Your task to perform on an android device: check the backup settings in the google photos Image 0: 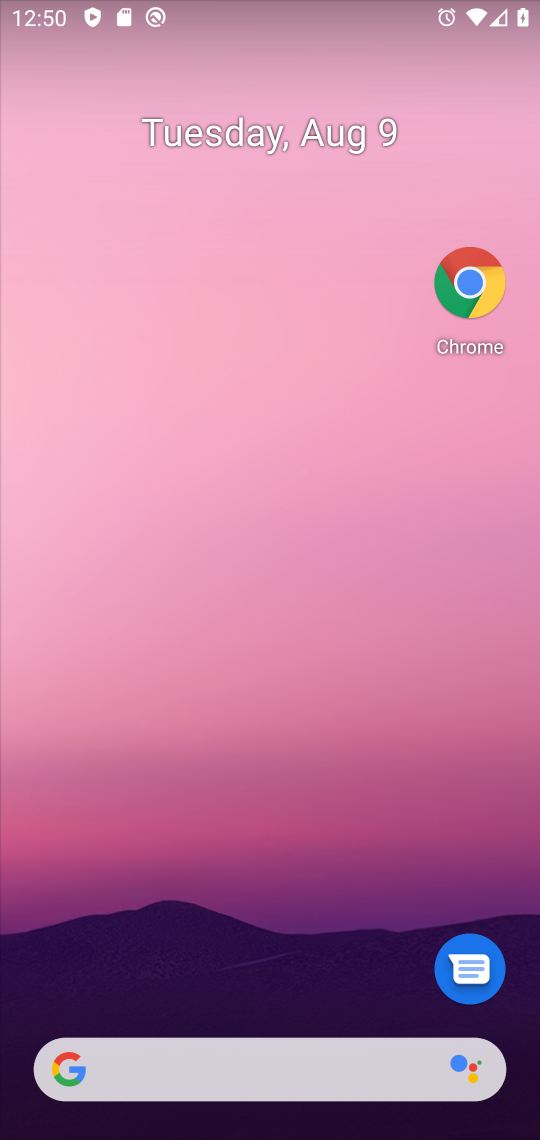
Step 0: drag from (308, 932) to (317, 489)
Your task to perform on an android device: check the backup settings in the google photos Image 1: 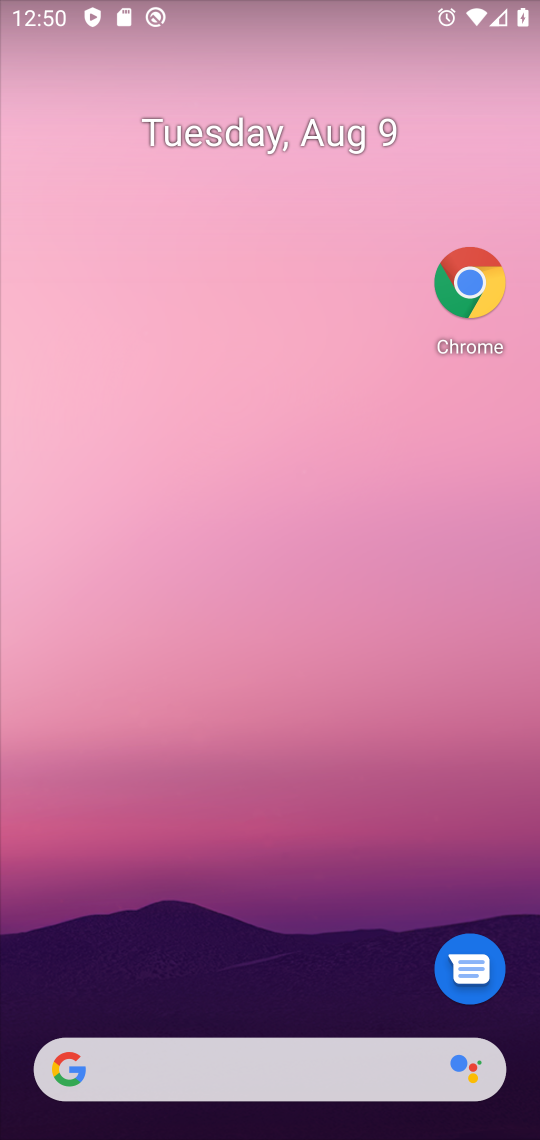
Step 1: drag from (291, 927) to (434, 156)
Your task to perform on an android device: check the backup settings in the google photos Image 2: 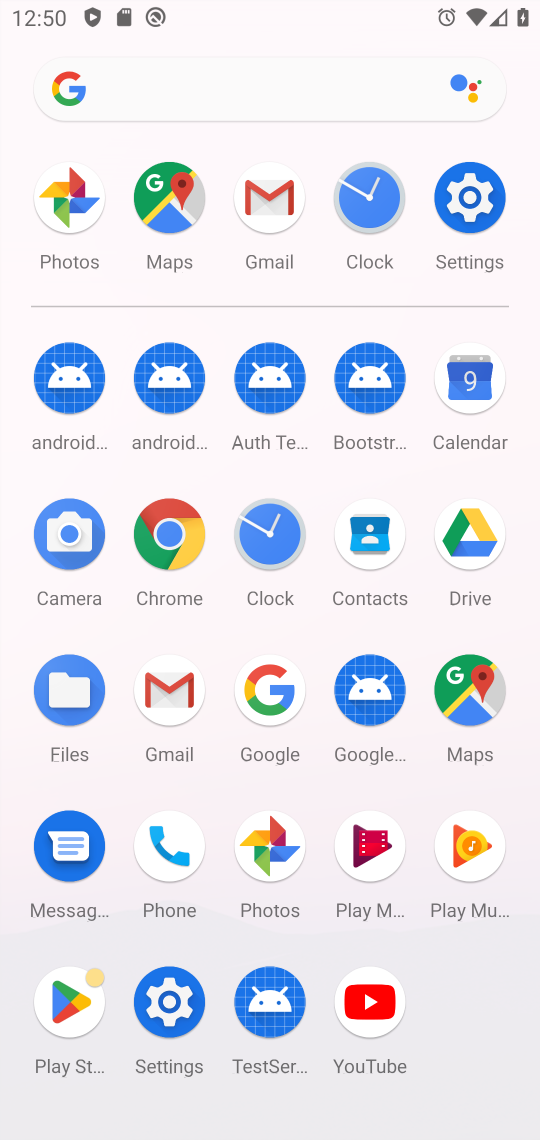
Step 2: click (262, 837)
Your task to perform on an android device: check the backup settings in the google photos Image 3: 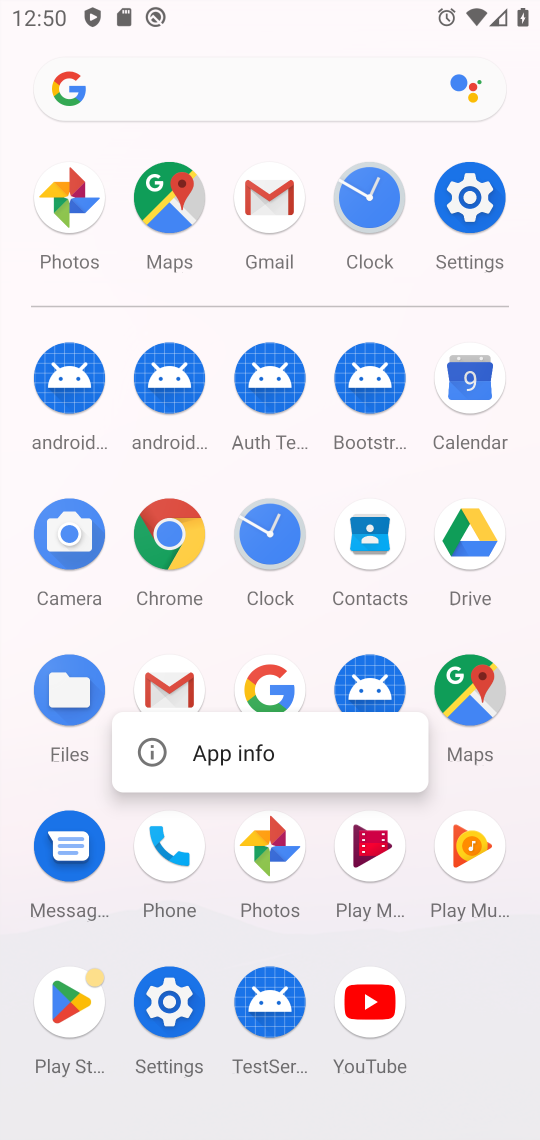
Step 3: click (244, 764)
Your task to perform on an android device: check the backup settings in the google photos Image 4: 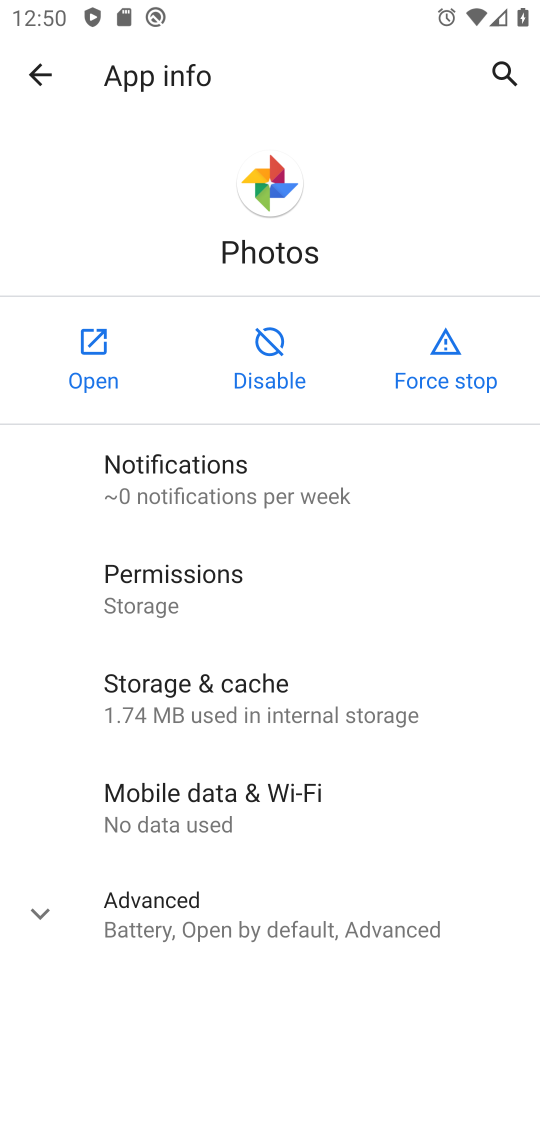
Step 4: click (78, 343)
Your task to perform on an android device: check the backup settings in the google photos Image 5: 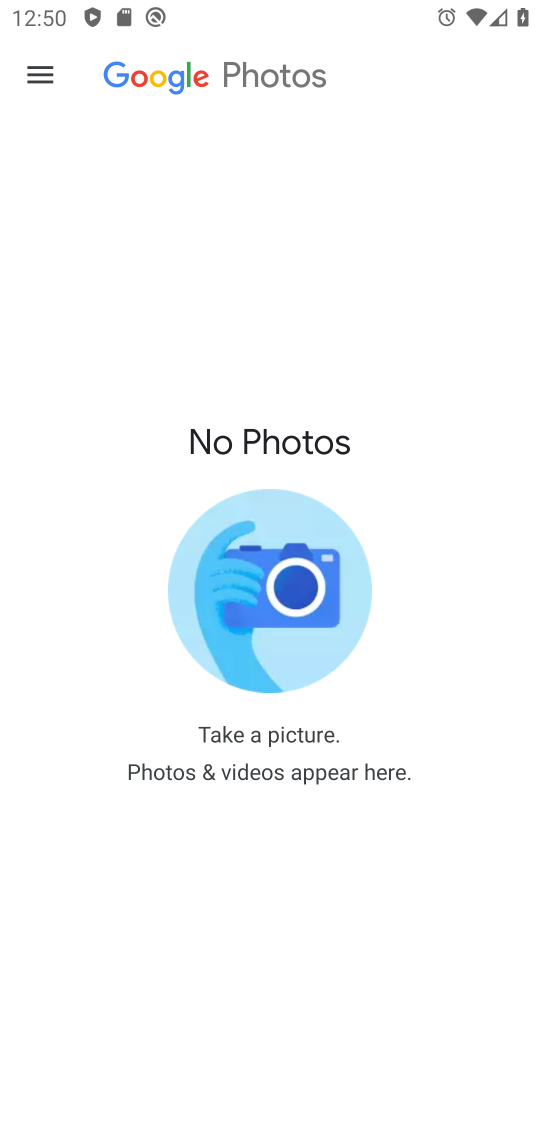
Step 5: drag from (242, 865) to (223, 558)
Your task to perform on an android device: check the backup settings in the google photos Image 6: 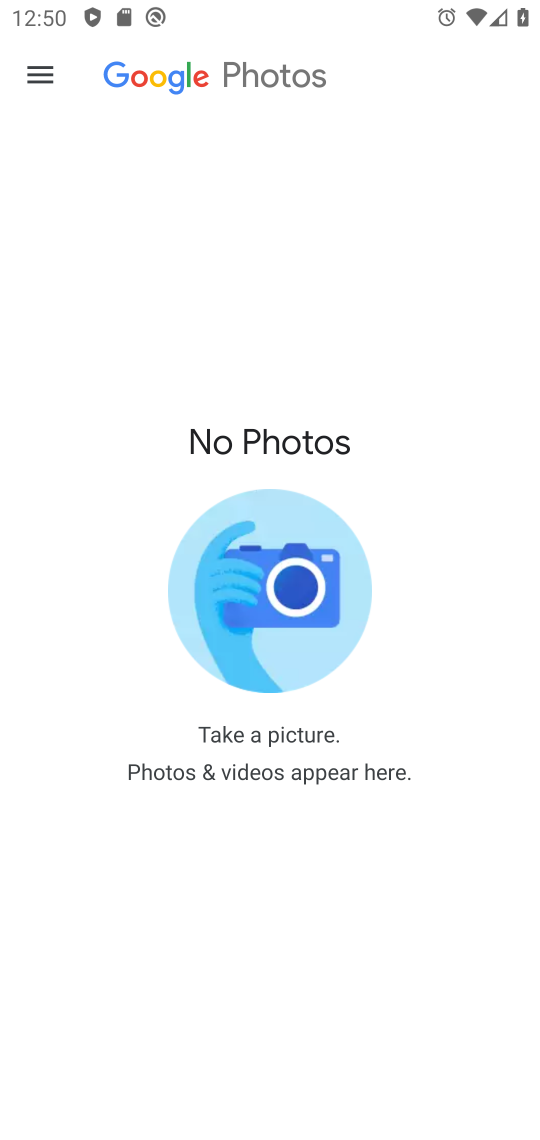
Step 6: click (38, 76)
Your task to perform on an android device: check the backup settings in the google photos Image 7: 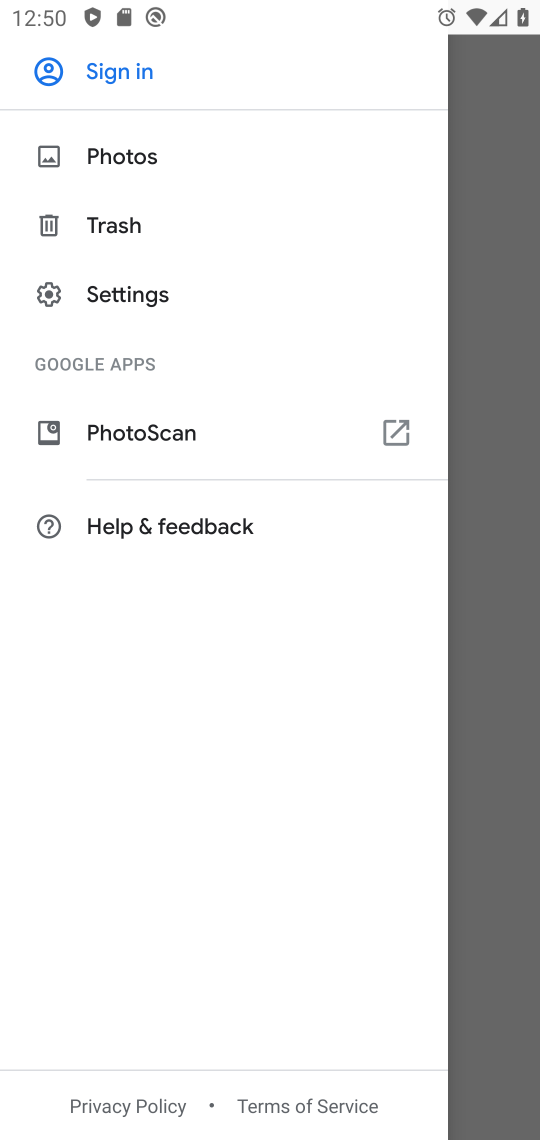
Step 7: click (503, 569)
Your task to perform on an android device: check the backup settings in the google photos Image 8: 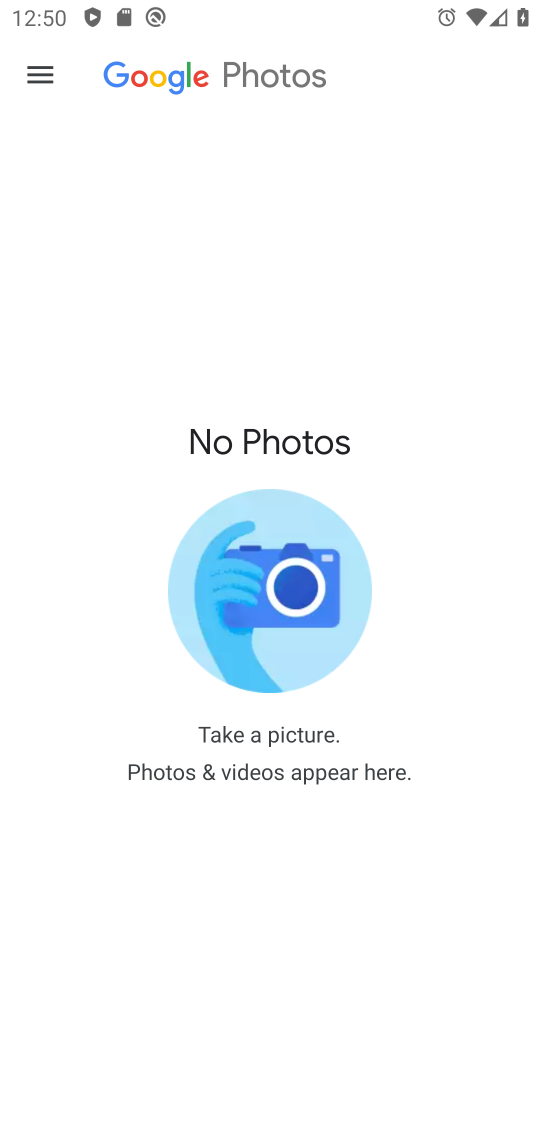
Step 8: drag from (280, 732) to (263, 615)
Your task to perform on an android device: check the backup settings in the google photos Image 9: 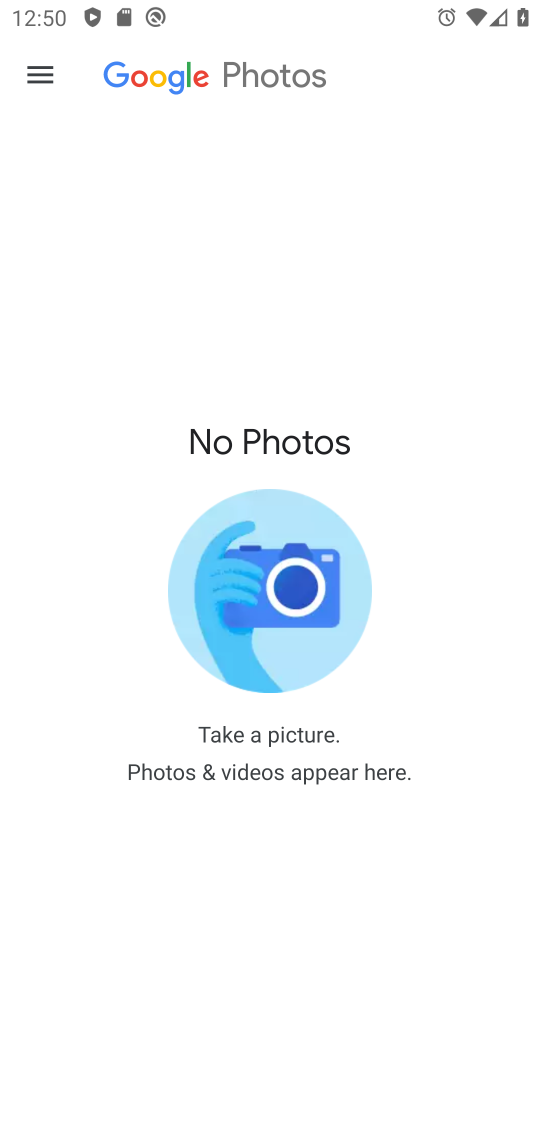
Step 9: click (252, 432)
Your task to perform on an android device: check the backup settings in the google photos Image 10: 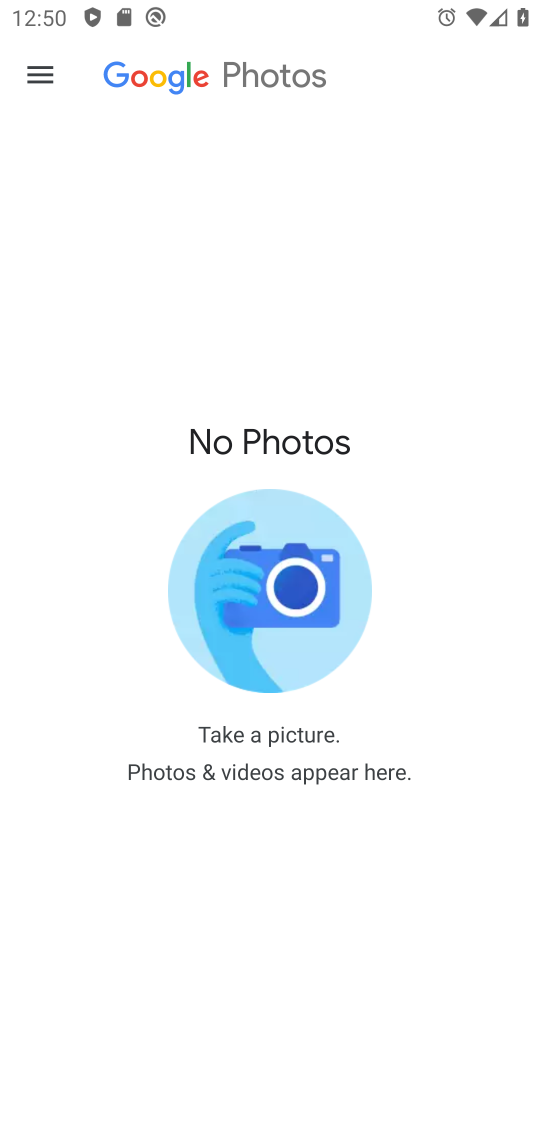
Step 10: click (306, 438)
Your task to perform on an android device: check the backup settings in the google photos Image 11: 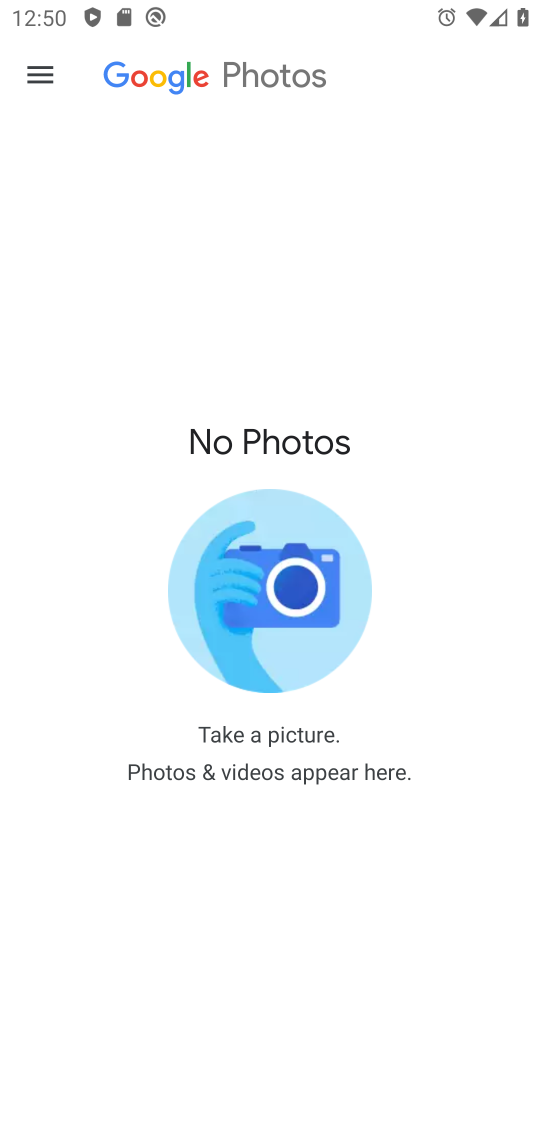
Step 11: click (268, 469)
Your task to perform on an android device: check the backup settings in the google photos Image 12: 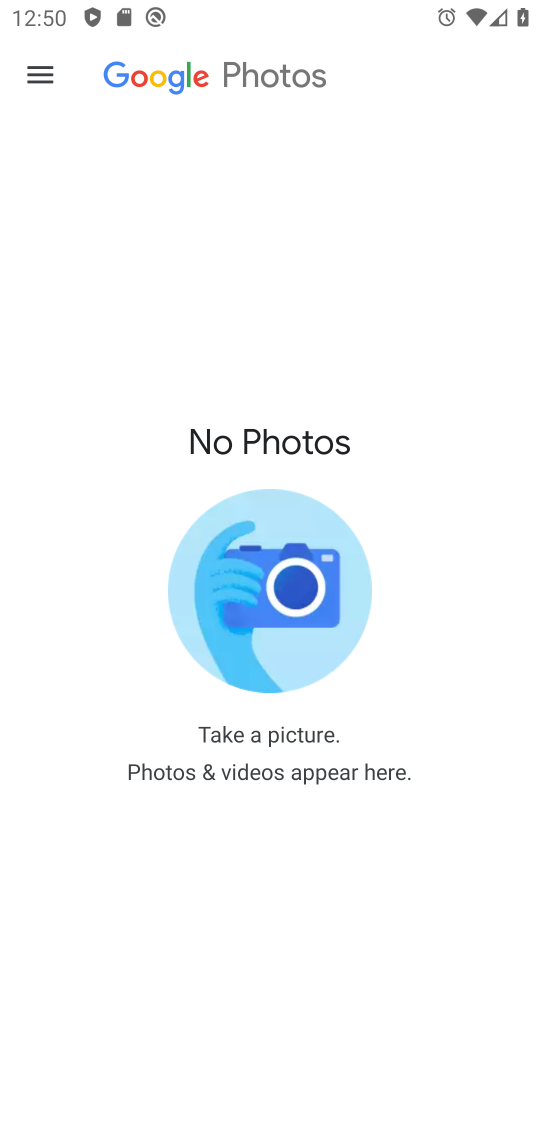
Step 12: click (273, 445)
Your task to perform on an android device: check the backup settings in the google photos Image 13: 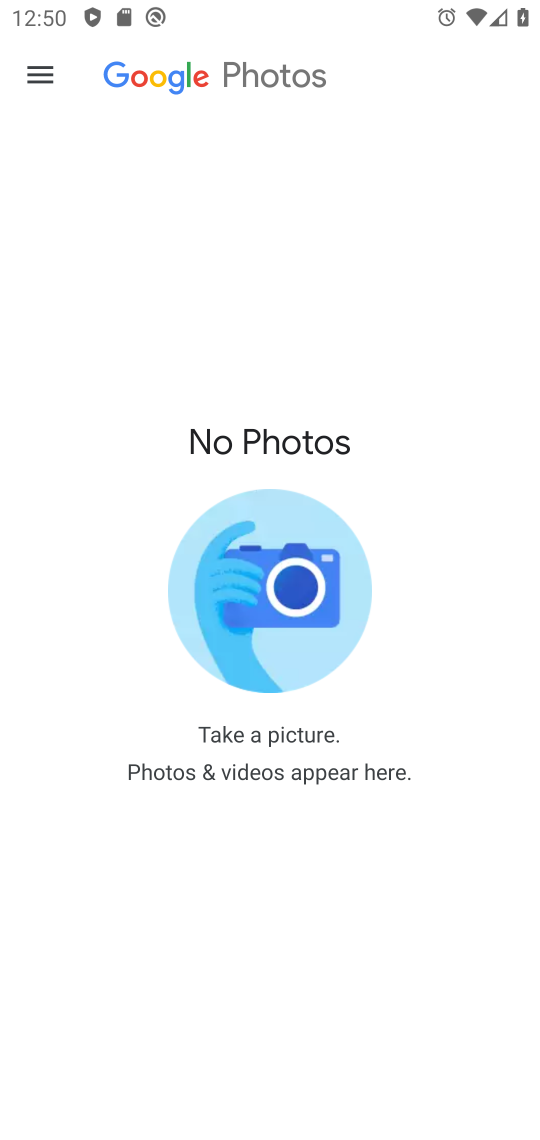
Step 13: click (273, 445)
Your task to perform on an android device: check the backup settings in the google photos Image 14: 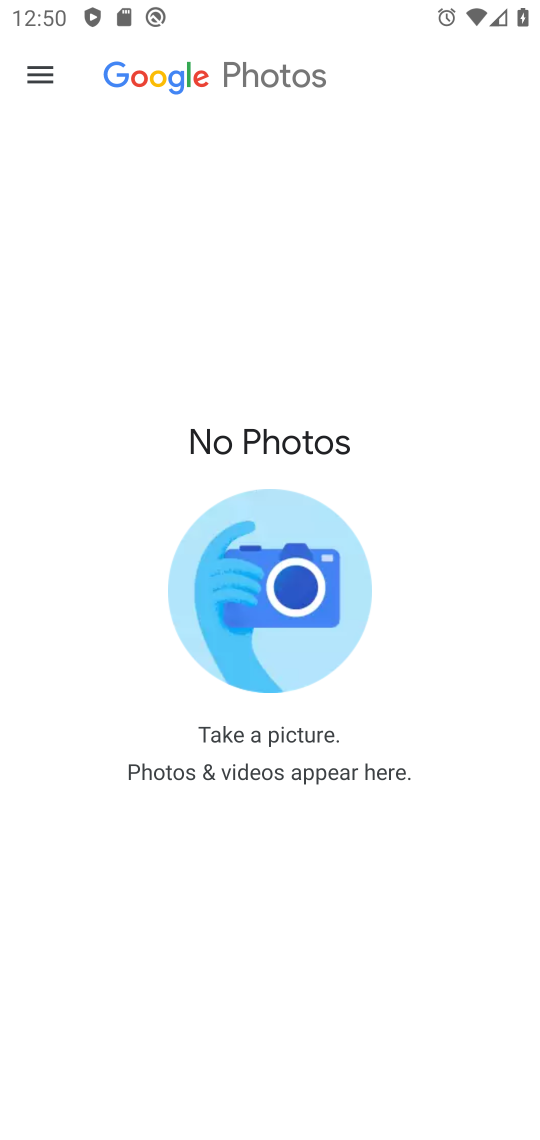
Step 14: click (273, 445)
Your task to perform on an android device: check the backup settings in the google photos Image 15: 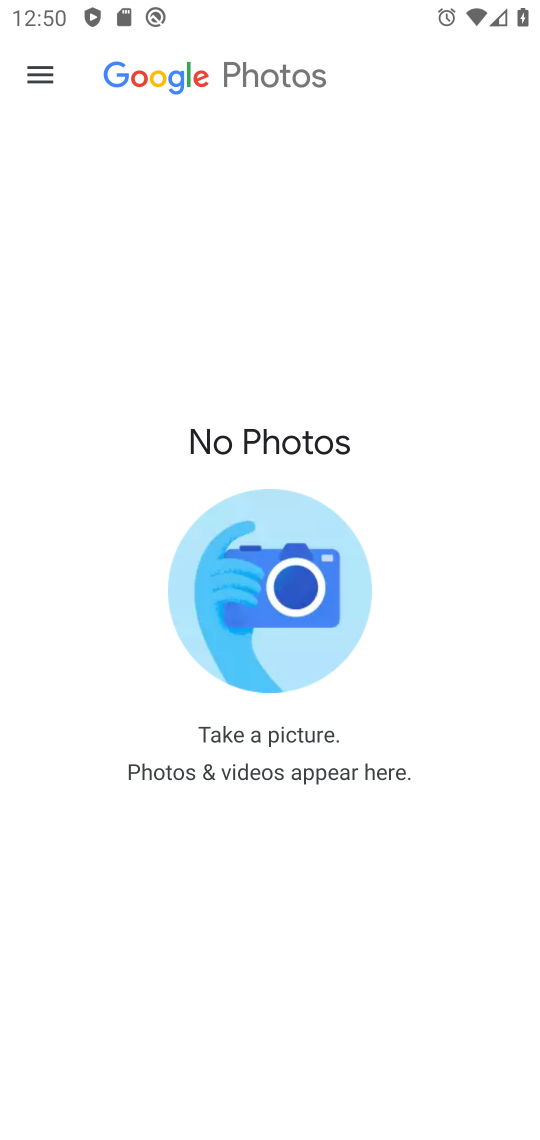
Step 15: task complete